Your task to perform on an android device: toggle show notifications on the lock screen Image 0: 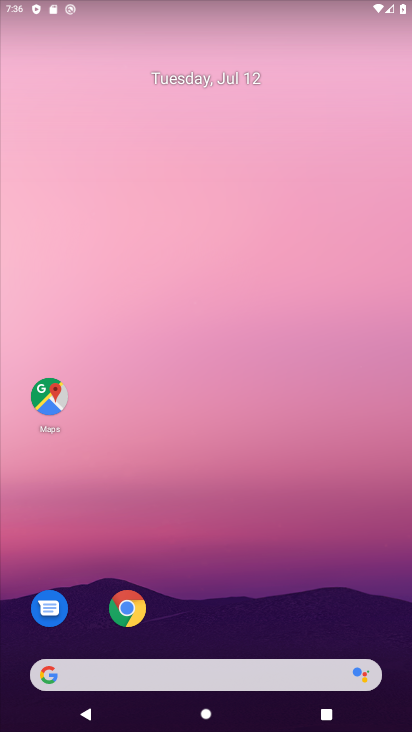
Step 0: drag from (201, 636) to (182, 247)
Your task to perform on an android device: toggle show notifications on the lock screen Image 1: 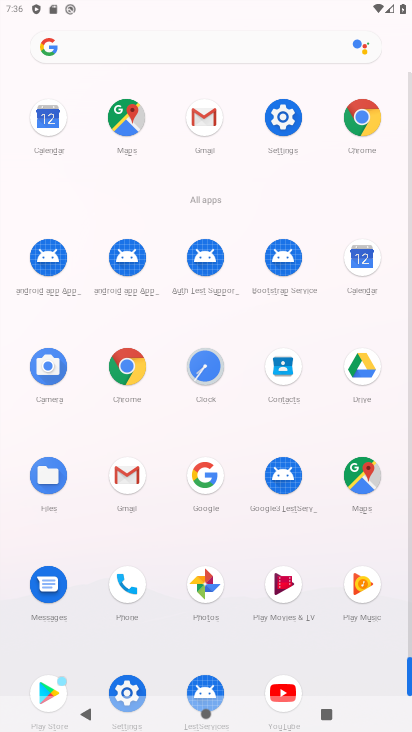
Step 1: click (279, 107)
Your task to perform on an android device: toggle show notifications on the lock screen Image 2: 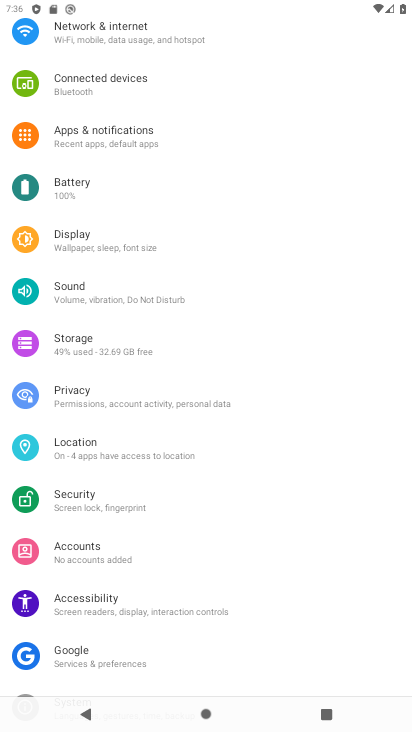
Step 2: click (116, 133)
Your task to perform on an android device: toggle show notifications on the lock screen Image 3: 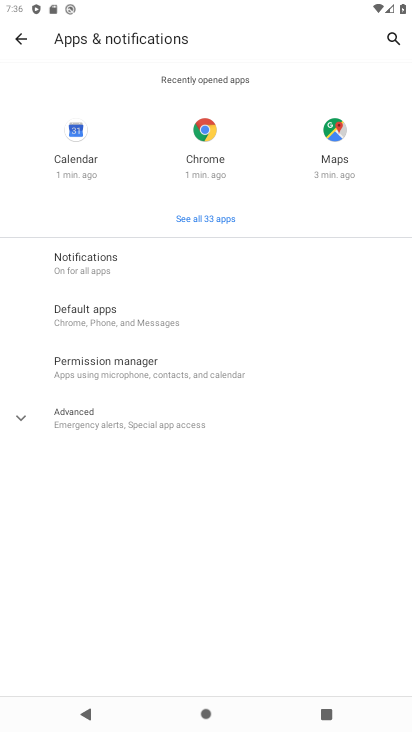
Step 3: click (125, 265)
Your task to perform on an android device: toggle show notifications on the lock screen Image 4: 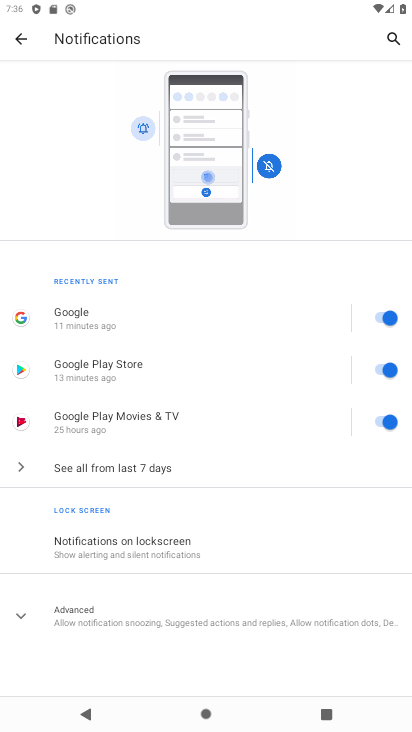
Step 4: click (154, 549)
Your task to perform on an android device: toggle show notifications on the lock screen Image 5: 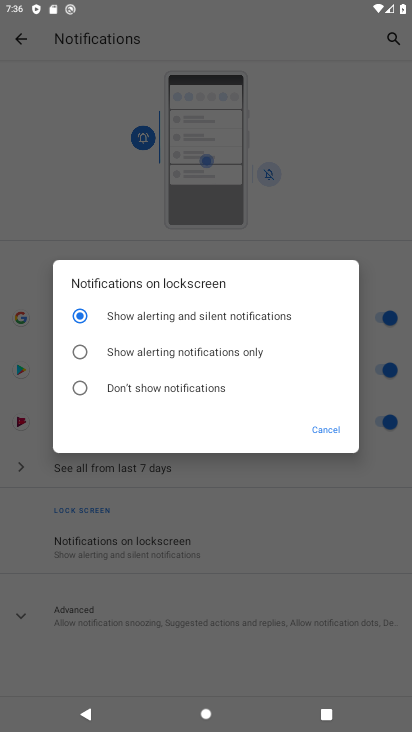
Step 5: click (131, 383)
Your task to perform on an android device: toggle show notifications on the lock screen Image 6: 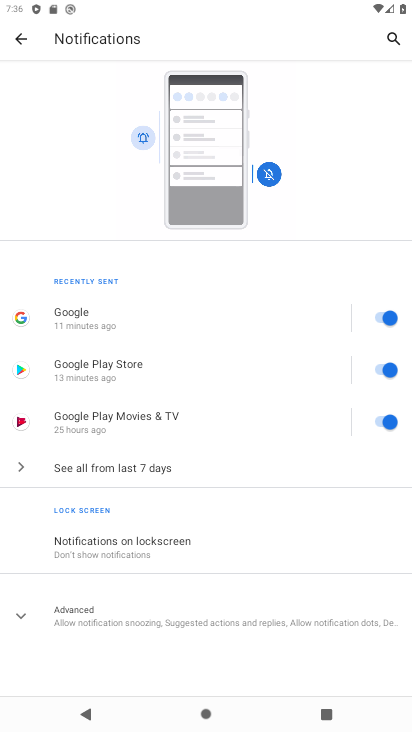
Step 6: task complete